Your task to perform on an android device: Open CNN.com Image 0: 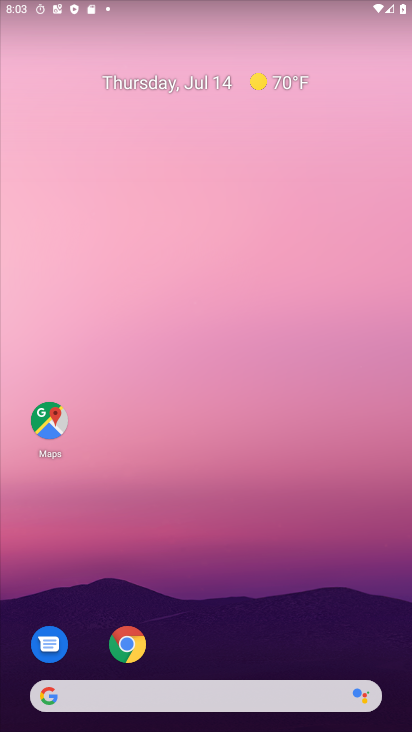
Step 0: click (126, 646)
Your task to perform on an android device: Open CNN.com Image 1: 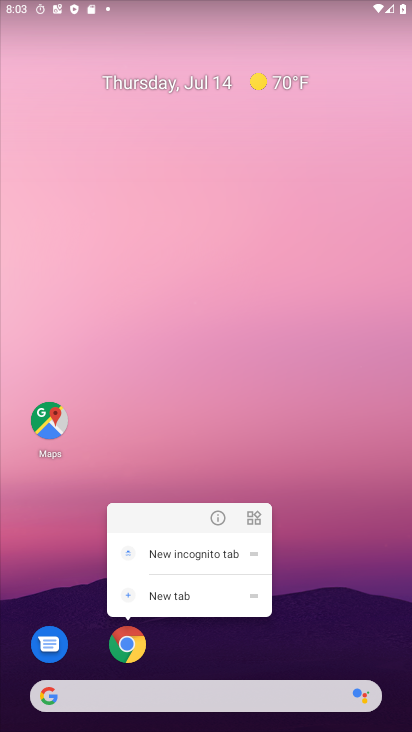
Step 1: click (126, 647)
Your task to perform on an android device: Open CNN.com Image 2: 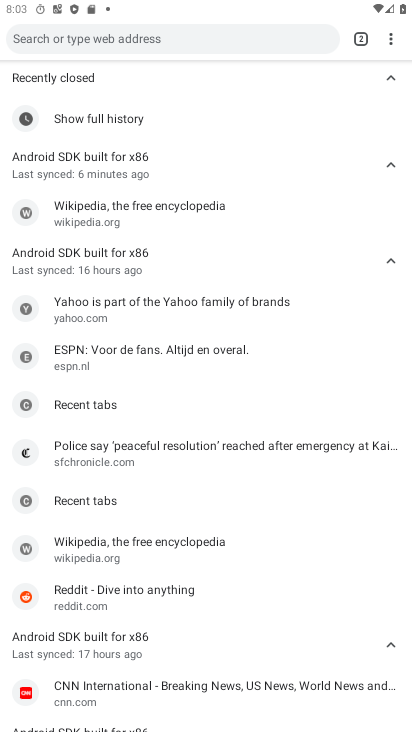
Step 2: drag from (392, 40) to (295, 124)
Your task to perform on an android device: Open CNN.com Image 3: 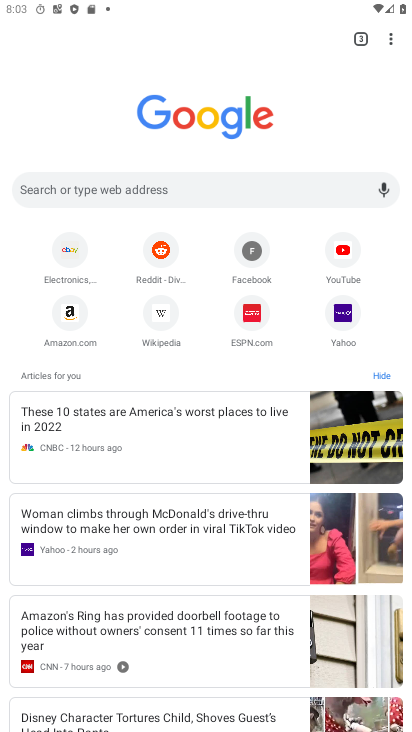
Step 3: click (186, 189)
Your task to perform on an android device: Open CNN.com Image 4: 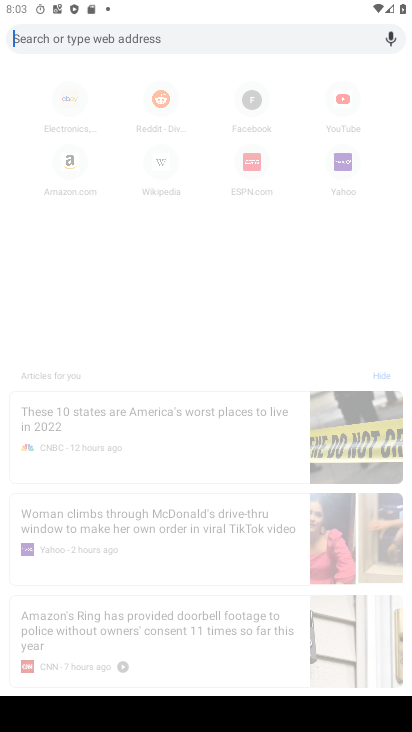
Step 4: type "cnn.com"
Your task to perform on an android device: Open CNN.com Image 5: 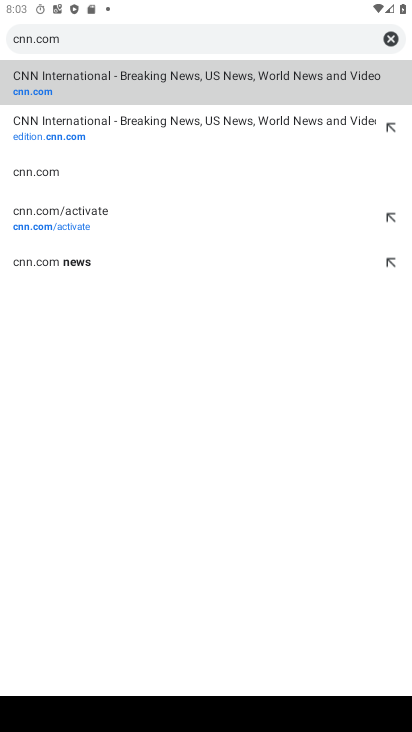
Step 5: click (236, 90)
Your task to perform on an android device: Open CNN.com Image 6: 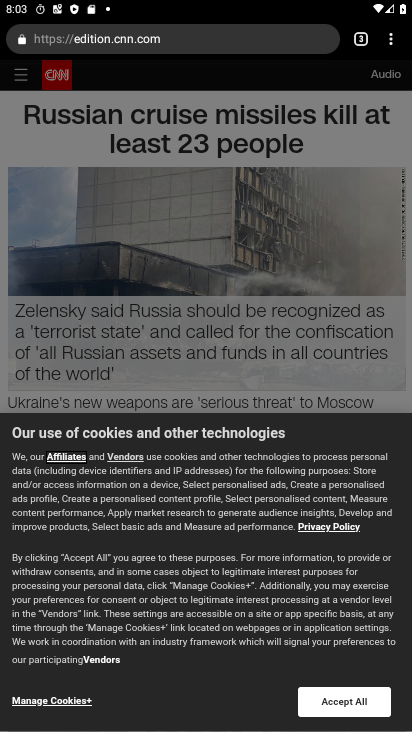
Step 6: click (368, 697)
Your task to perform on an android device: Open CNN.com Image 7: 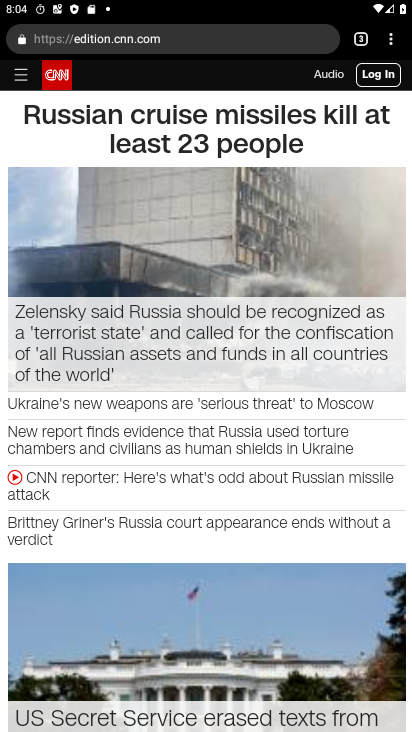
Step 7: task complete